Your task to perform on an android device: Go to network settings Image 0: 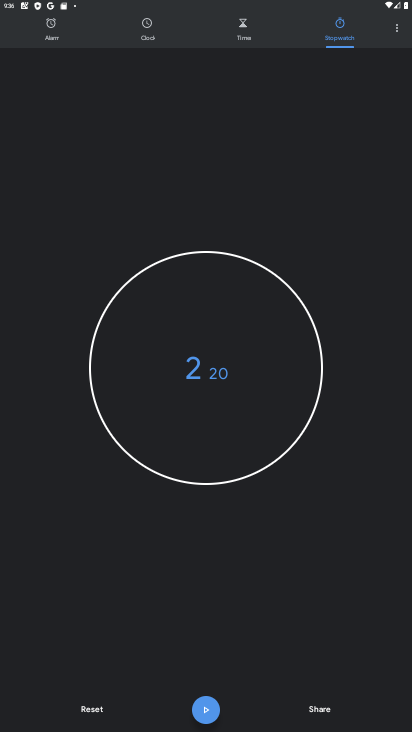
Step 0: press home button
Your task to perform on an android device: Go to network settings Image 1: 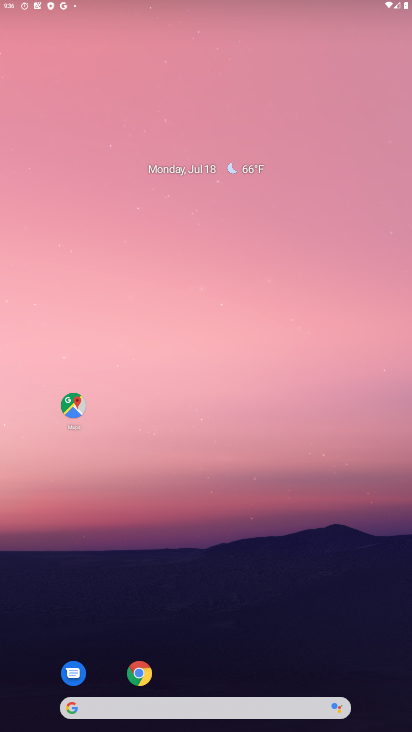
Step 1: drag from (237, 671) to (227, 108)
Your task to perform on an android device: Go to network settings Image 2: 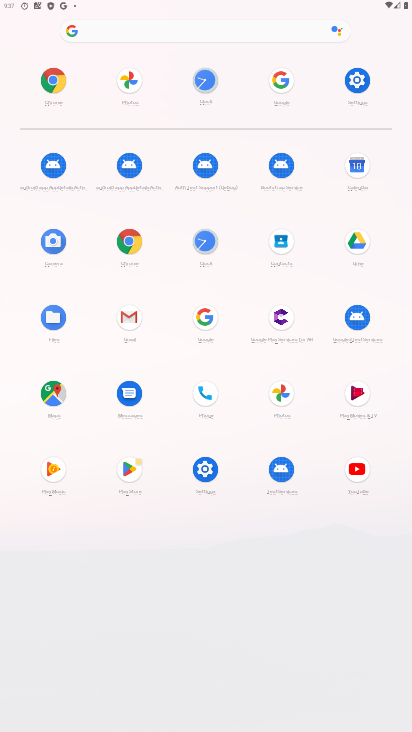
Step 2: click (355, 81)
Your task to perform on an android device: Go to network settings Image 3: 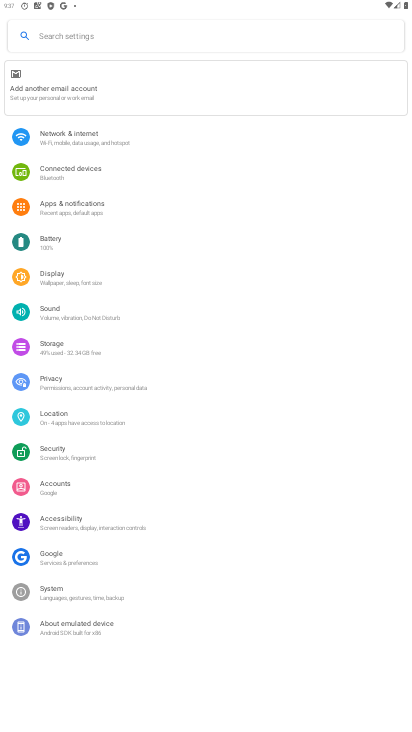
Step 3: click (87, 141)
Your task to perform on an android device: Go to network settings Image 4: 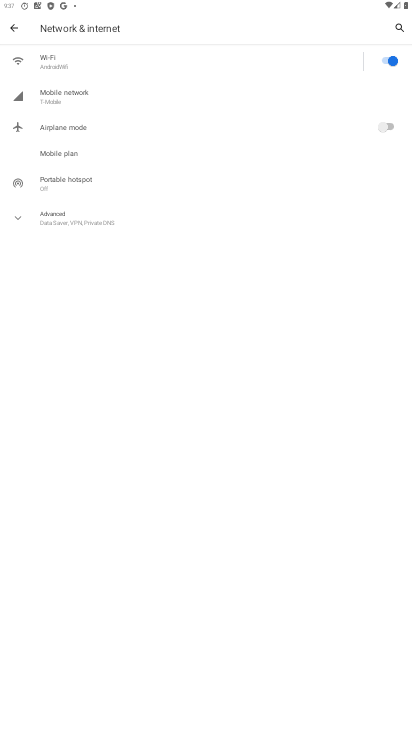
Step 4: click (87, 100)
Your task to perform on an android device: Go to network settings Image 5: 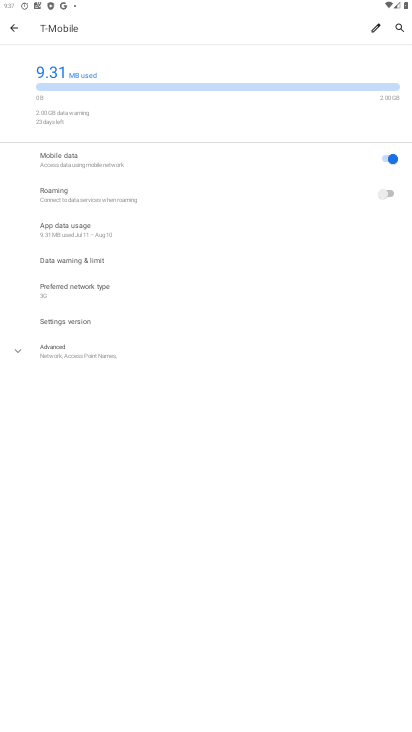
Step 5: task complete